Your task to perform on an android device: check battery use Image 0: 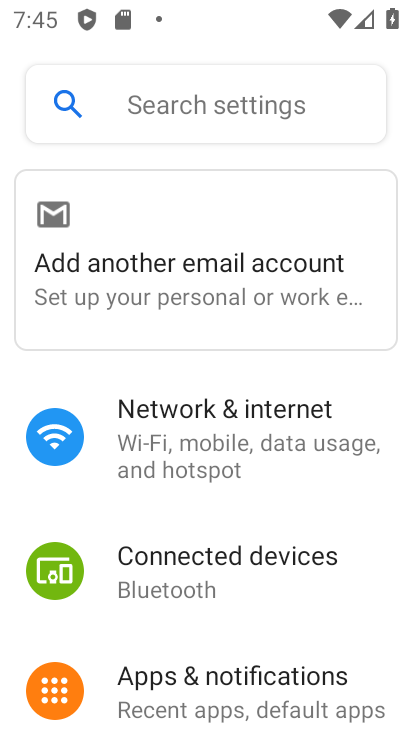
Step 0: drag from (374, 526) to (393, 361)
Your task to perform on an android device: check battery use Image 1: 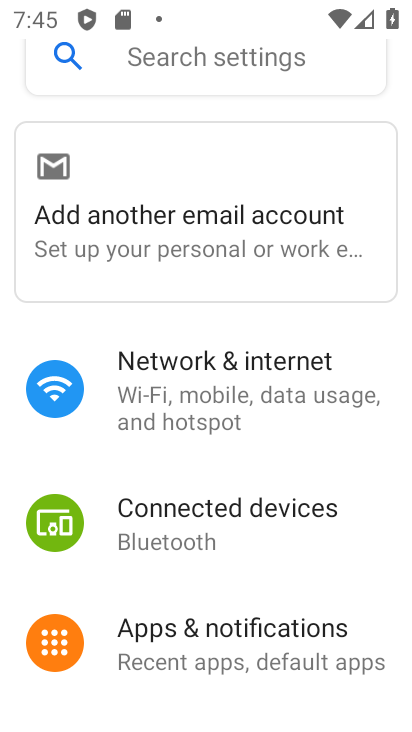
Step 1: drag from (384, 577) to (377, 330)
Your task to perform on an android device: check battery use Image 2: 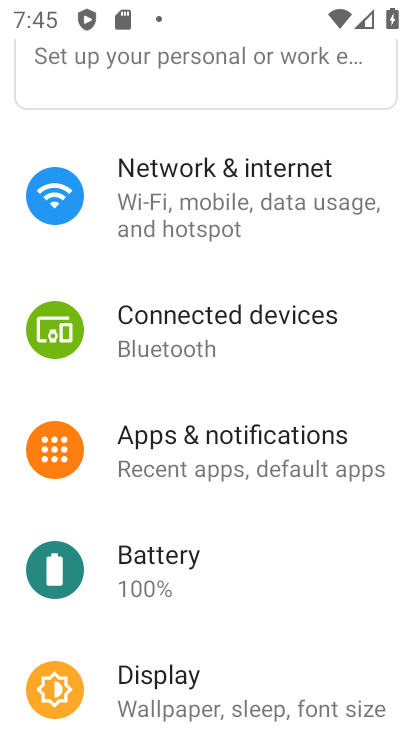
Step 2: drag from (352, 641) to (377, 334)
Your task to perform on an android device: check battery use Image 3: 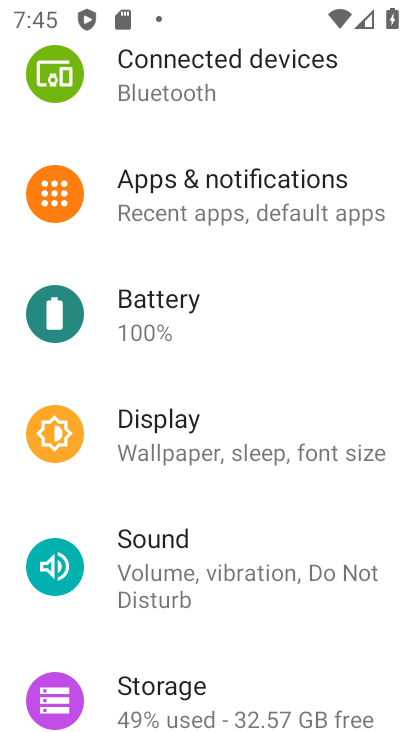
Step 3: click (188, 305)
Your task to perform on an android device: check battery use Image 4: 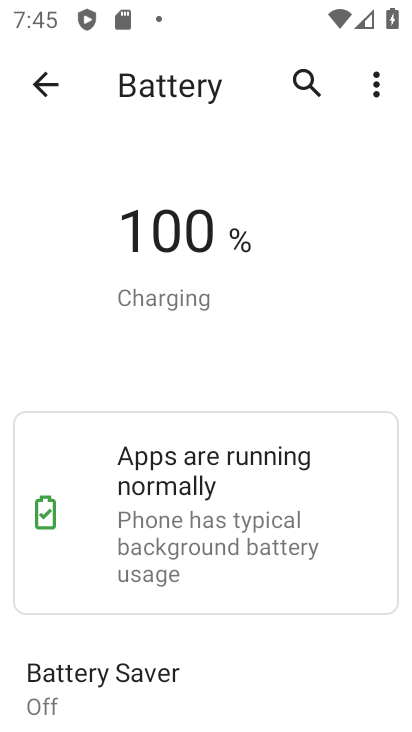
Step 4: click (373, 80)
Your task to perform on an android device: check battery use Image 5: 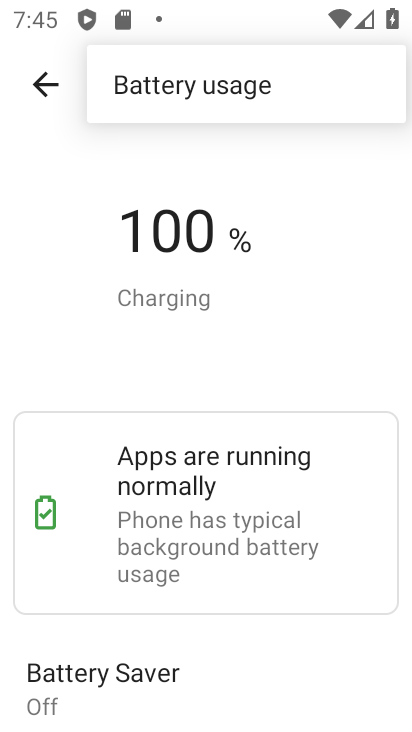
Step 5: click (226, 100)
Your task to perform on an android device: check battery use Image 6: 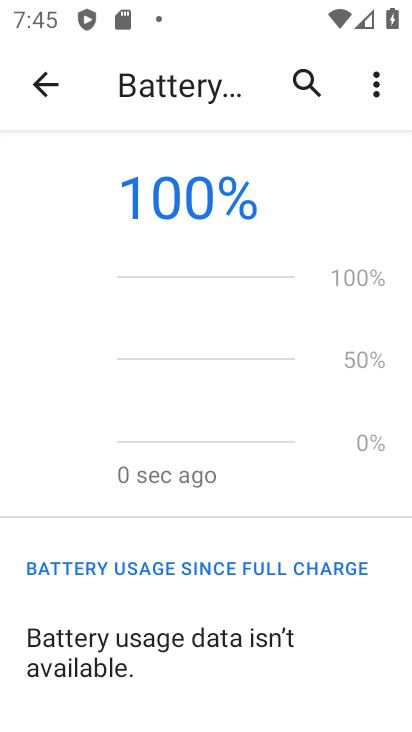
Step 6: task complete